Your task to perform on an android device: Clear all items from cart on target. Add "macbook" to the cart on target Image 0: 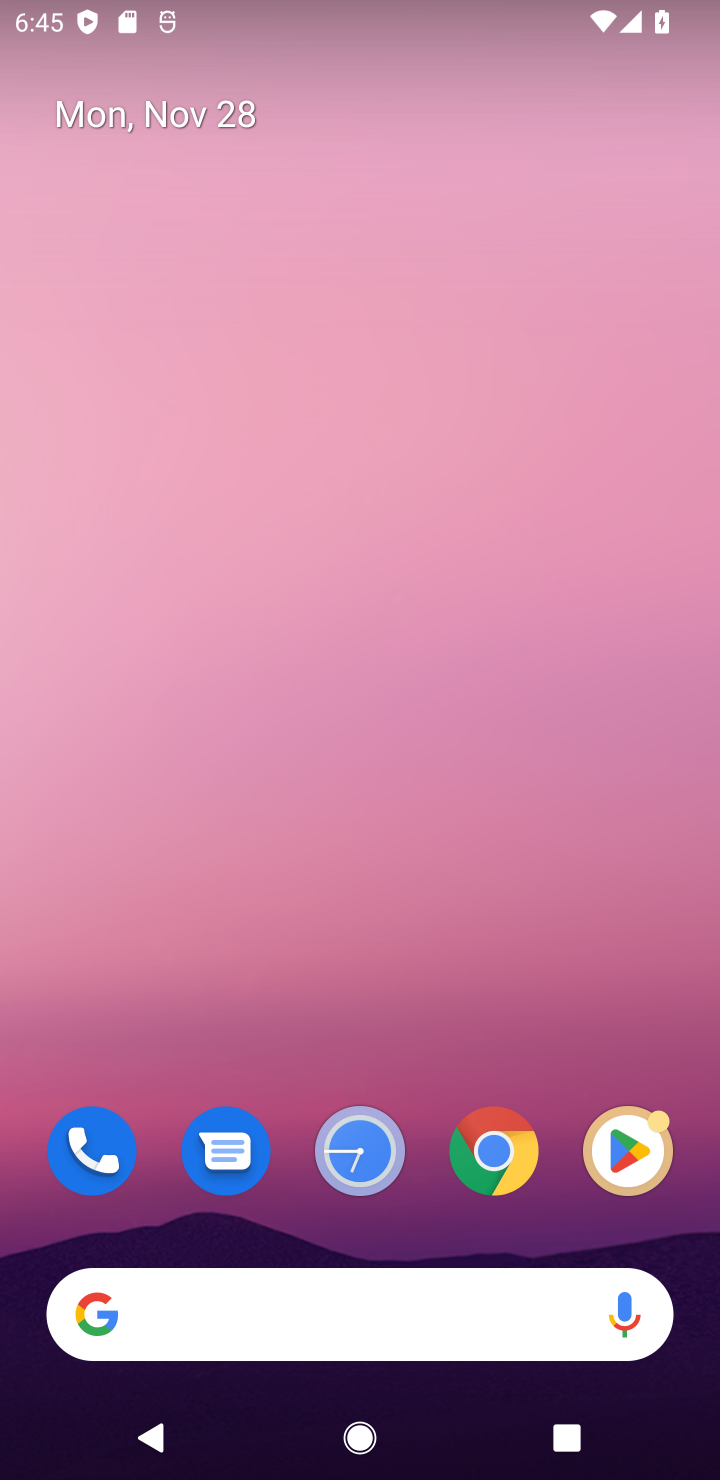
Step 0: press home button
Your task to perform on an android device: Clear all items from cart on target. Add "macbook" to the cart on target Image 1: 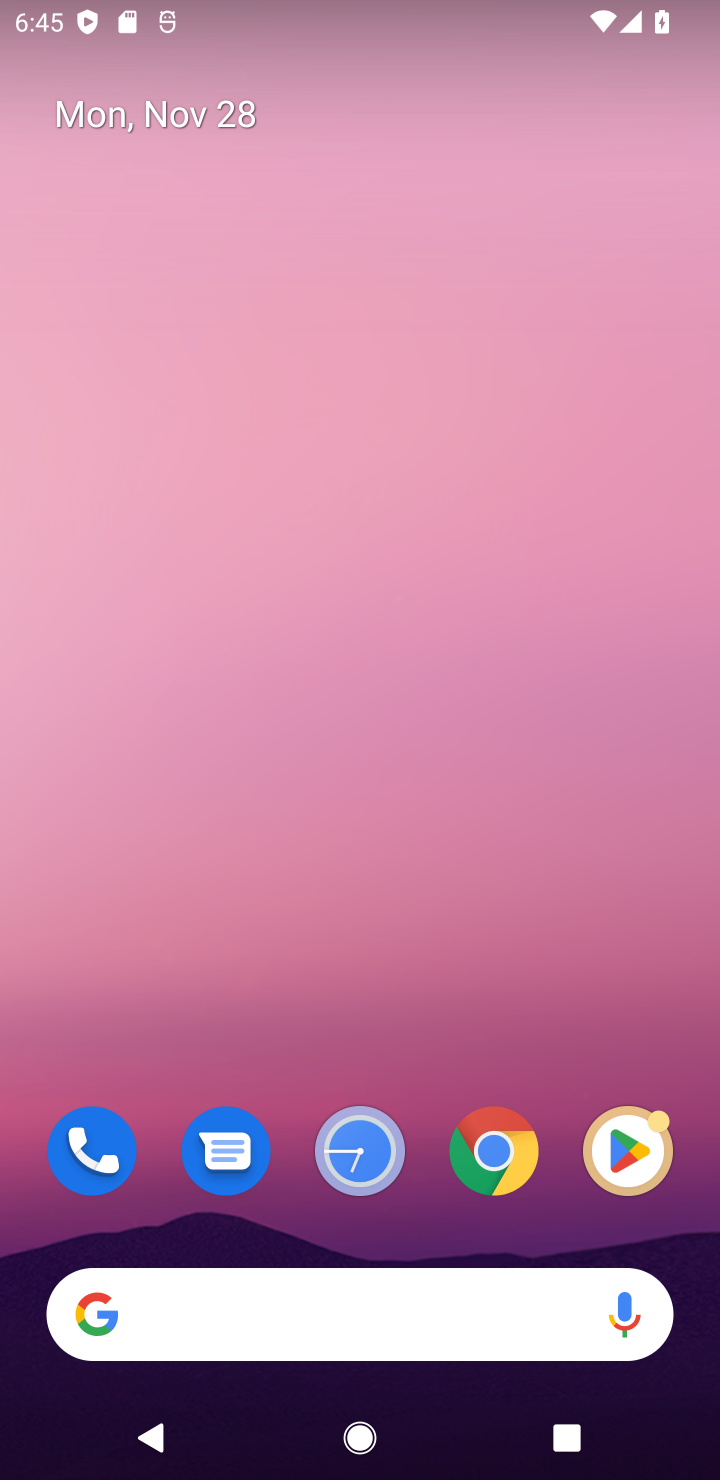
Step 1: click (286, 1344)
Your task to perform on an android device: Clear all items from cart on target. Add "macbook" to the cart on target Image 2: 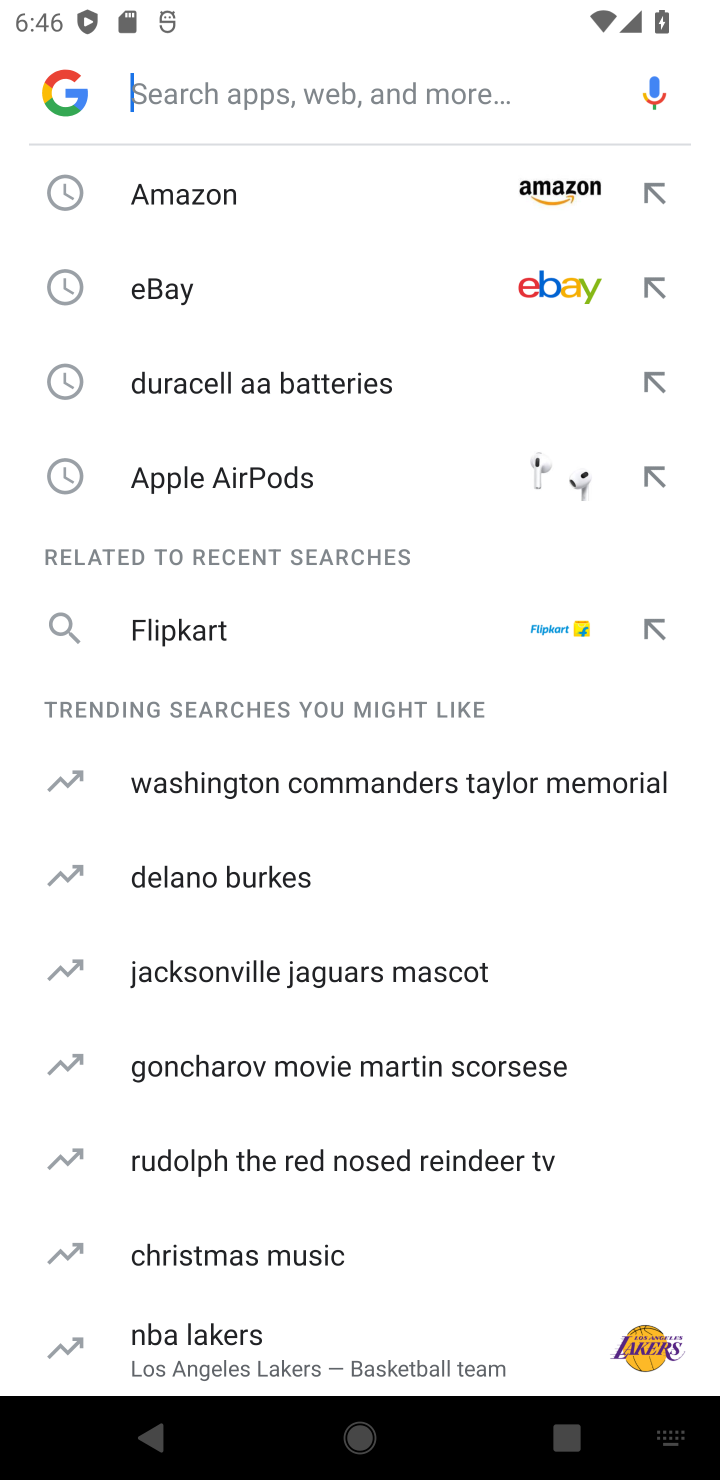
Step 2: type "target.com"
Your task to perform on an android device: Clear all items from cart on target. Add "macbook" to the cart on target Image 3: 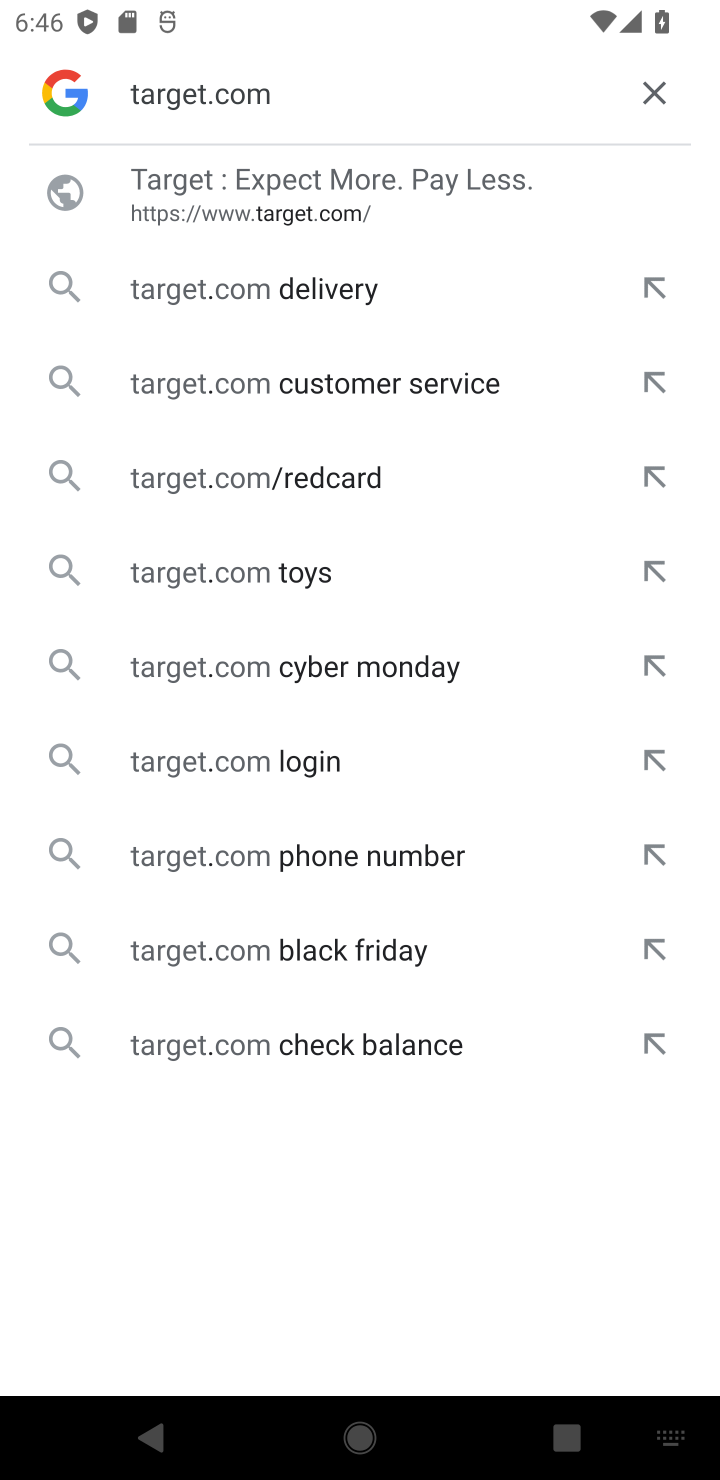
Step 3: click (158, 188)
Your task to perform on an android device: Clear all items from cart on target. Add "macbook" to the cart on target Image 4: 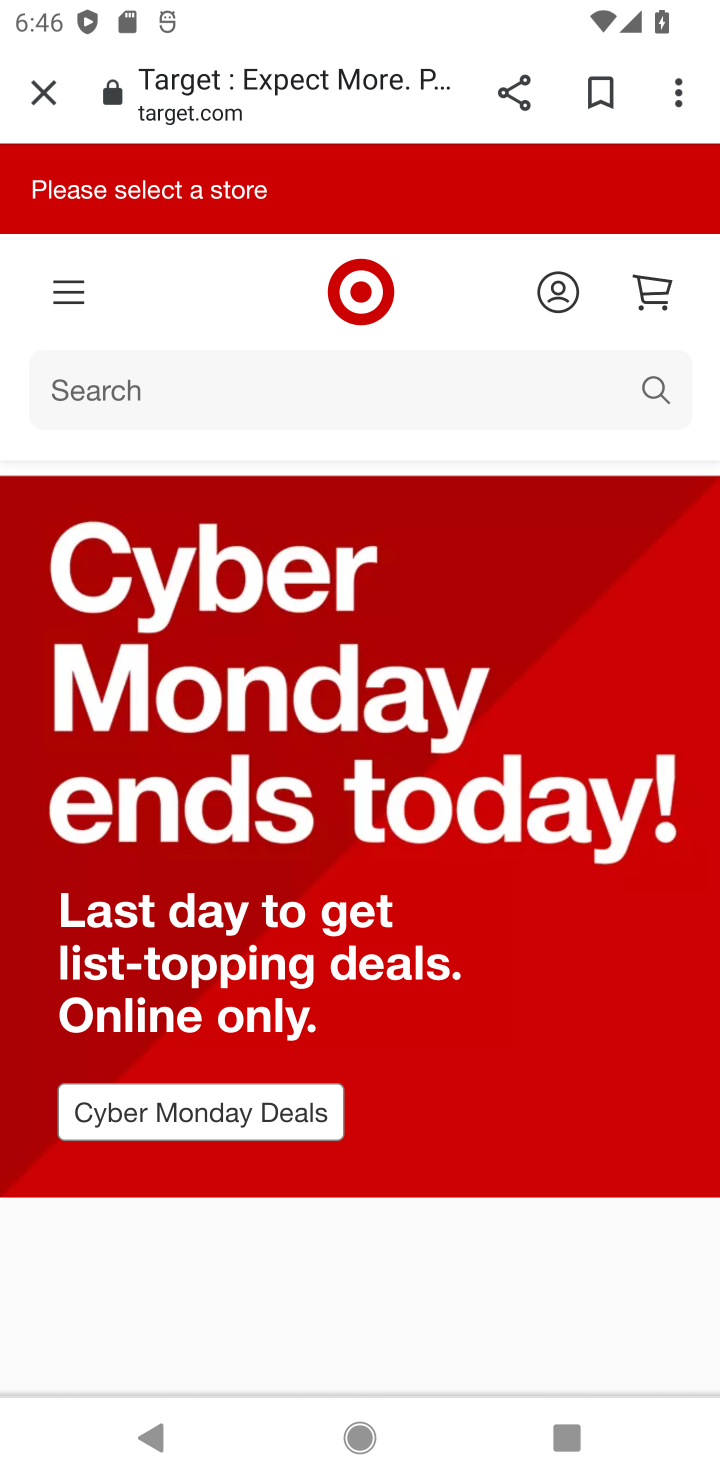
Step 4: click (159, 402)
Your task to perform on an android device: Clear all items from cart on target. Add "macbook" to the cart on target Image 5: 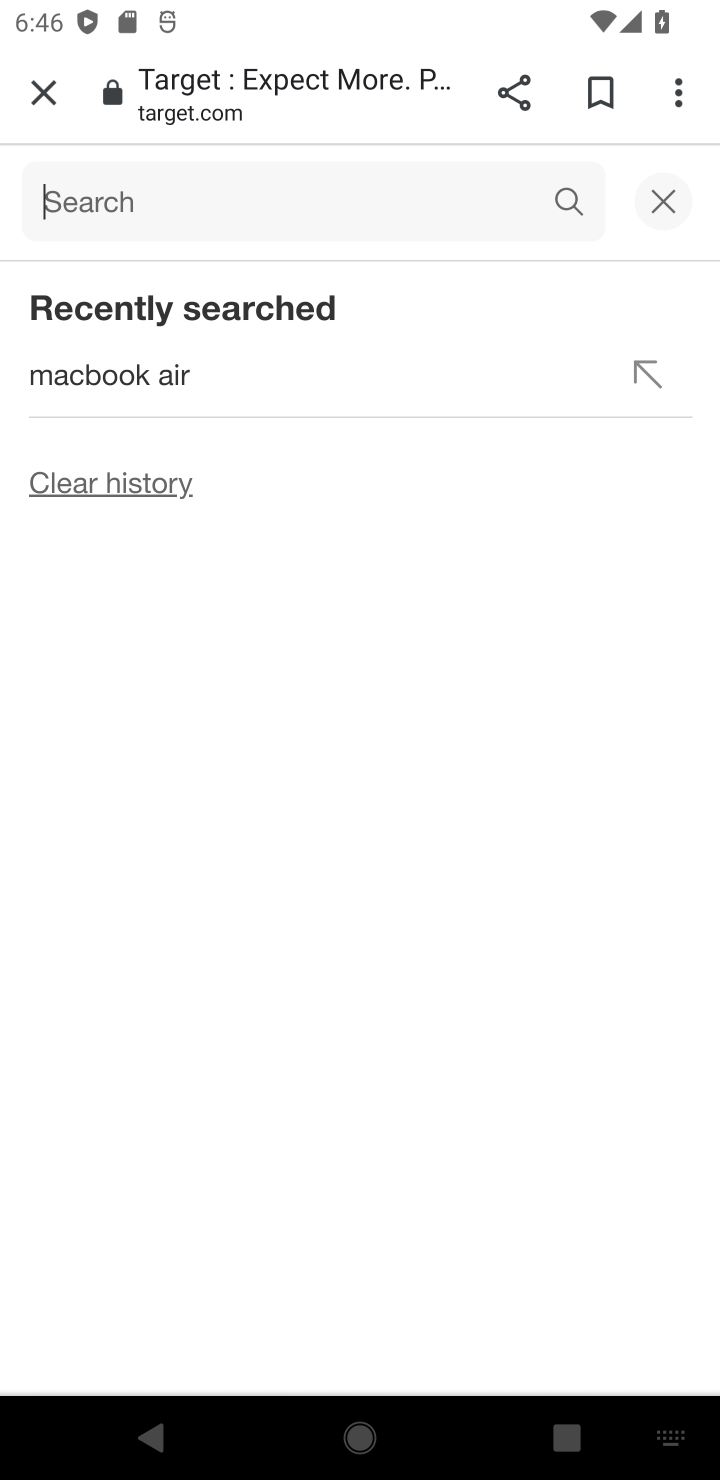
Step 5: type "macbook "
Your task to perform on an android device: Clear all items from cart on target. Add "macbook" to the cart on target Image 6: 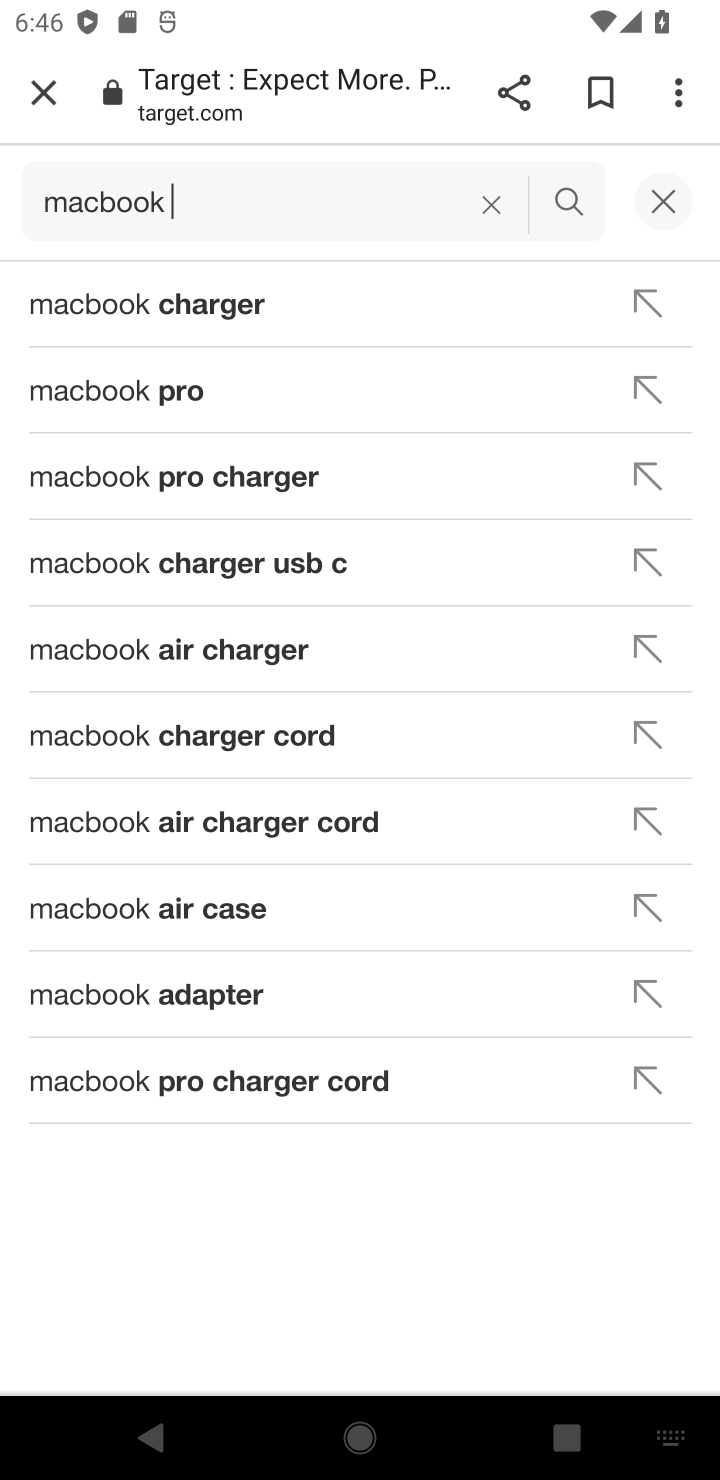
Step 6: click (246, 377)
Your task to perform on an android device: Clear all items from cart on target. Add "macbook" to the cart on target Image 7: 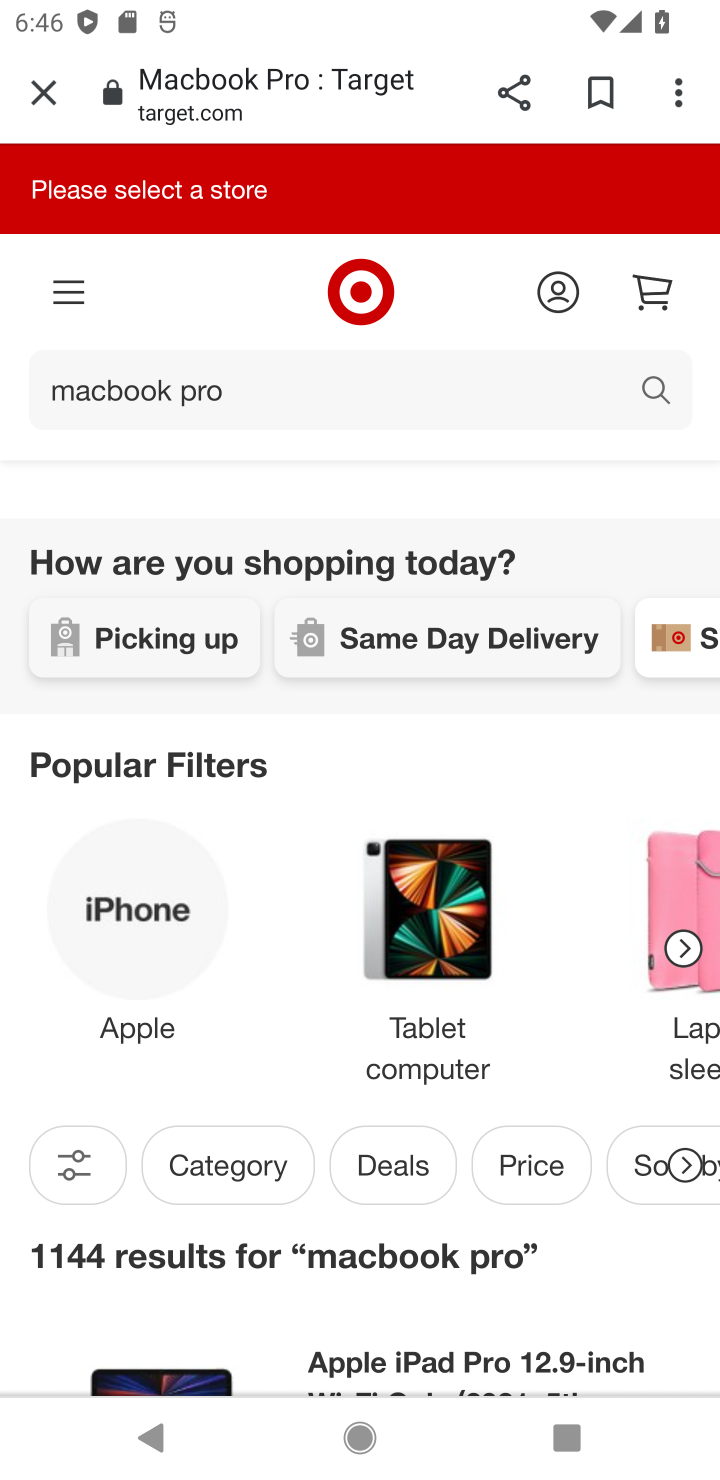
Step 7: task complete